Your task to perform on an android device: Show the shopping cart on costco. Search for macbook pro 13 inch on costco, select the first entry, and add it to the cart. Image 0: 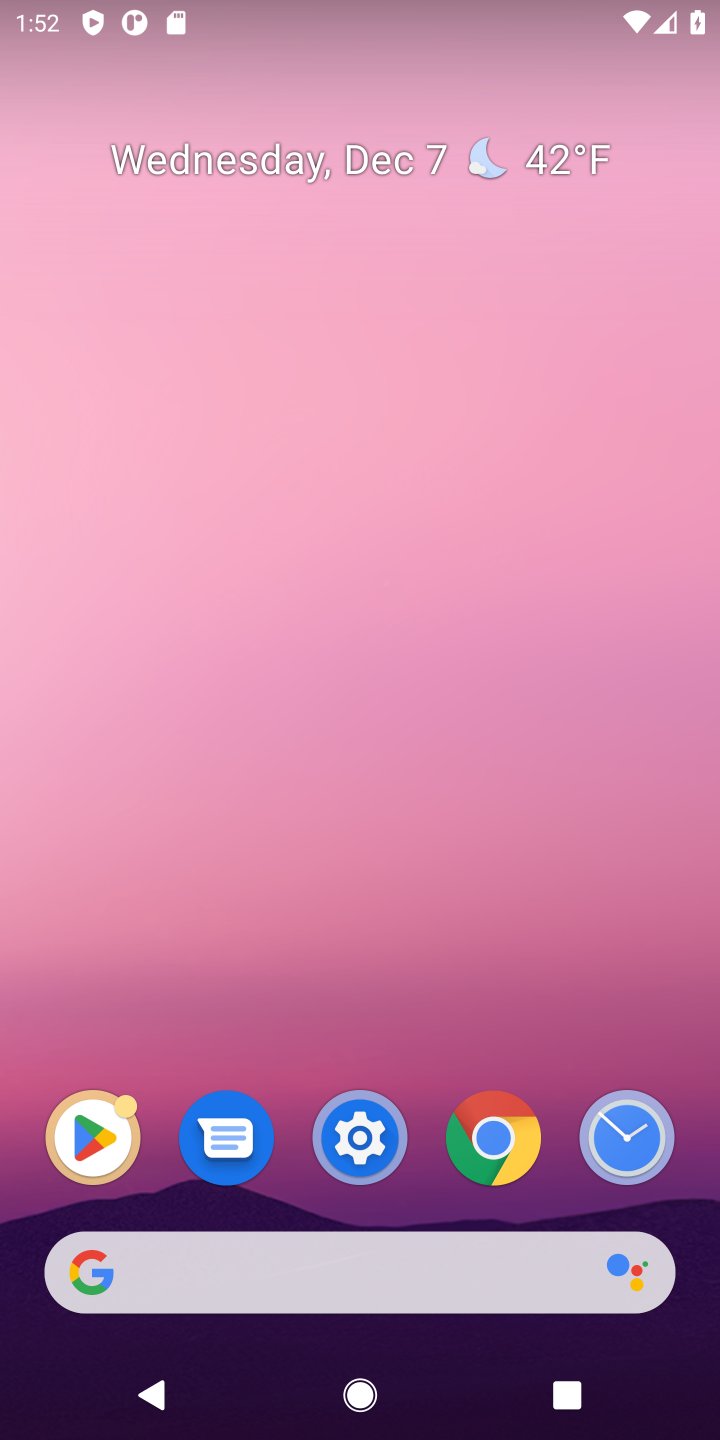
Step 0: click (390, 1293)
Your task to perform on an android device: Show the shopping cart on costco. Search for macbook pro 13 inch on costco, select the first entry, and add it to the cart. Image 1: 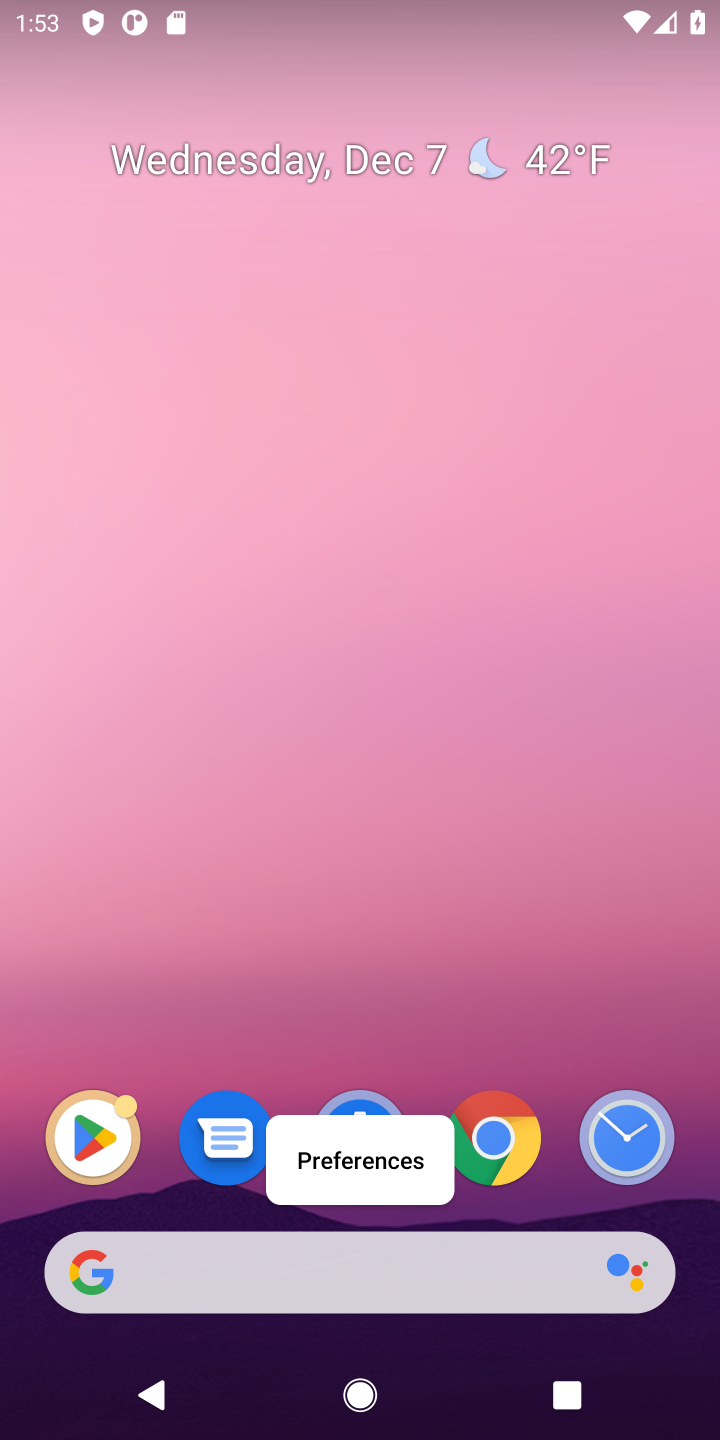
Step 1: type "costco"
Your task to perform on an android device: Show the shopping cart on costco. Search for macbook pro 13 inch on costco, select the first entry, and add it to the cart. Image 2: 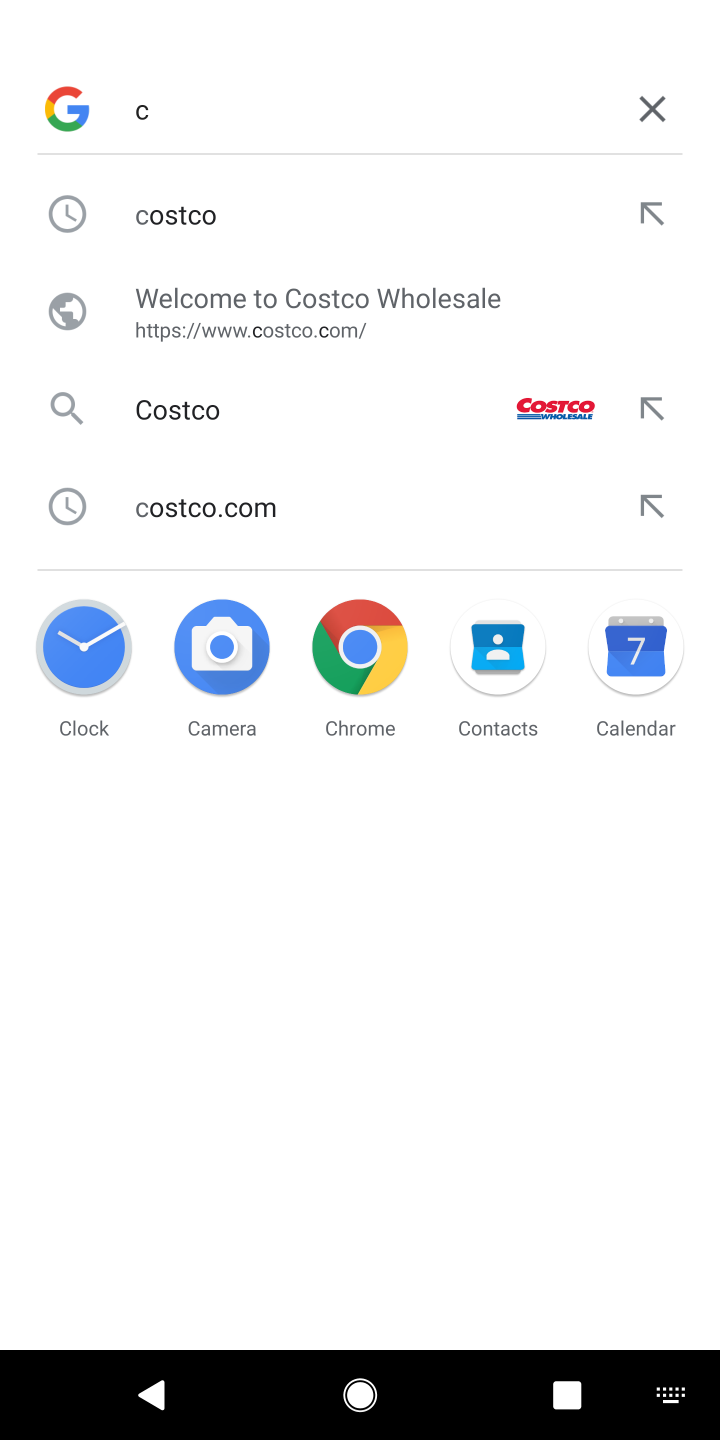
Step 2: click (211, 438)
Your task to perform on an android device: Show the shopping cart on costco. Search for macbook pro 13 inch on costco, select the first entry, and add it to the cart. Image 3: 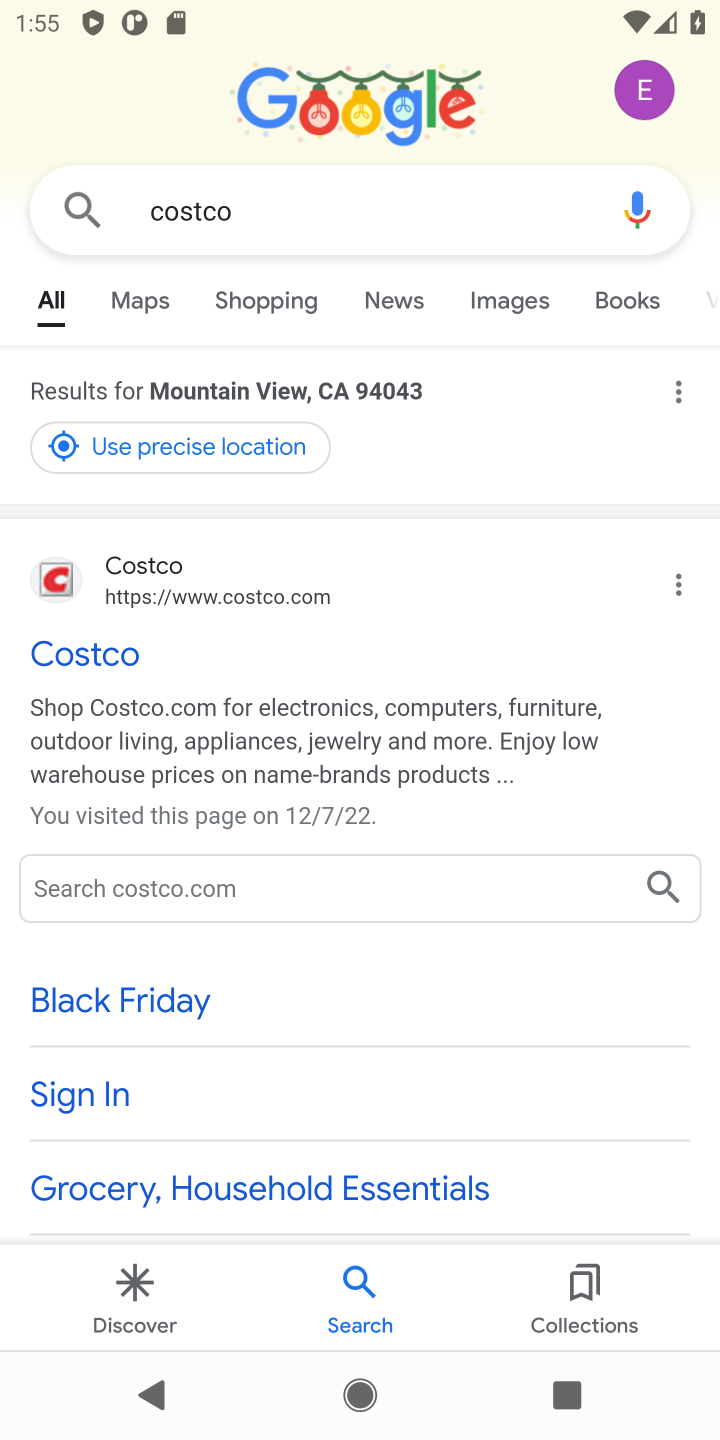
Step 3: click (79, 680)
Your task to perform on an android device: Show the shopping cart on costco. Search for macbook pro 13 inch on costco, select the first entry, and add it to the cart. Image 4: 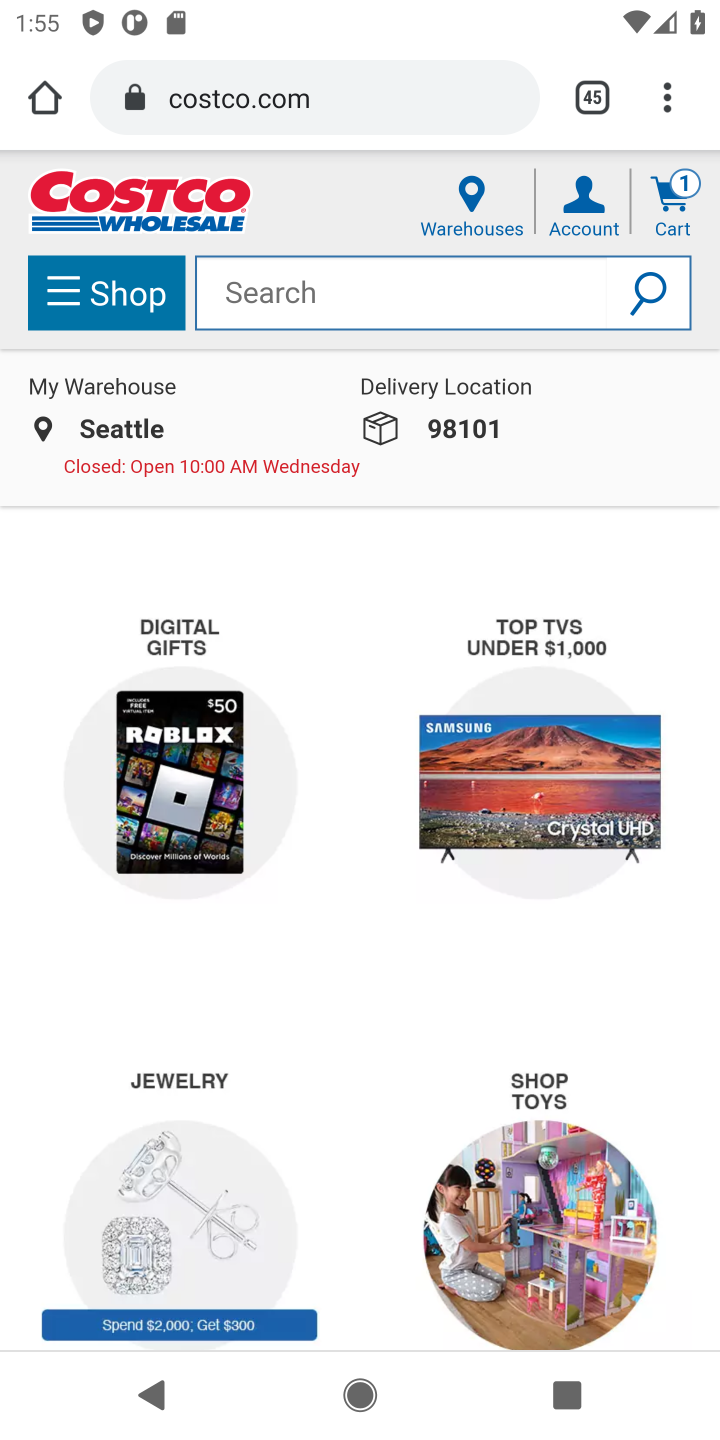
Step 4: click (335, 311)
Your task to perform on an android device: Show the shopping cart on costco. Search for macbook pro 13 inch on costco, select the first entry, and add it to the cart. Image 5: 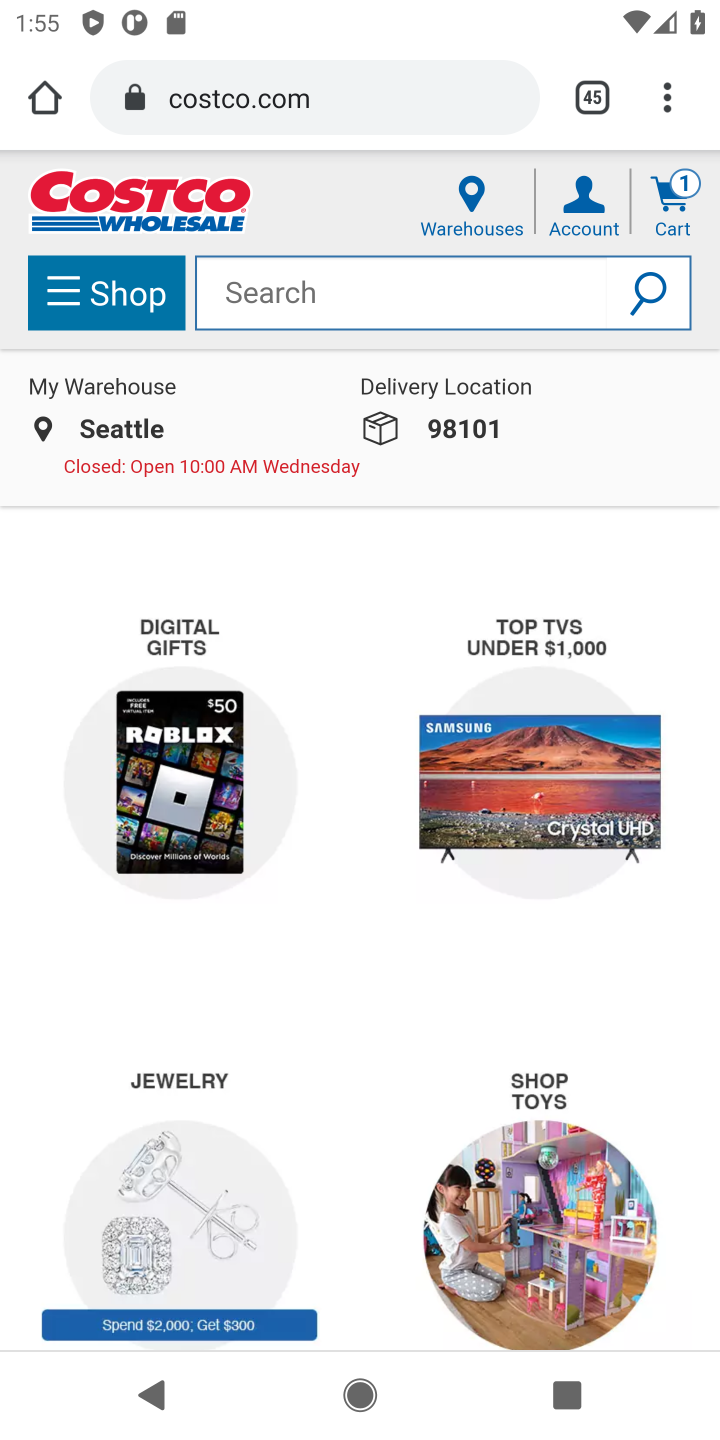
Step 5: click (399, 305)
Your task to perform on an android device: Show the shopping cart on costco. Search for macbook pro 13 inch on costco, select the first entry, and add it to the cart. Image 6: 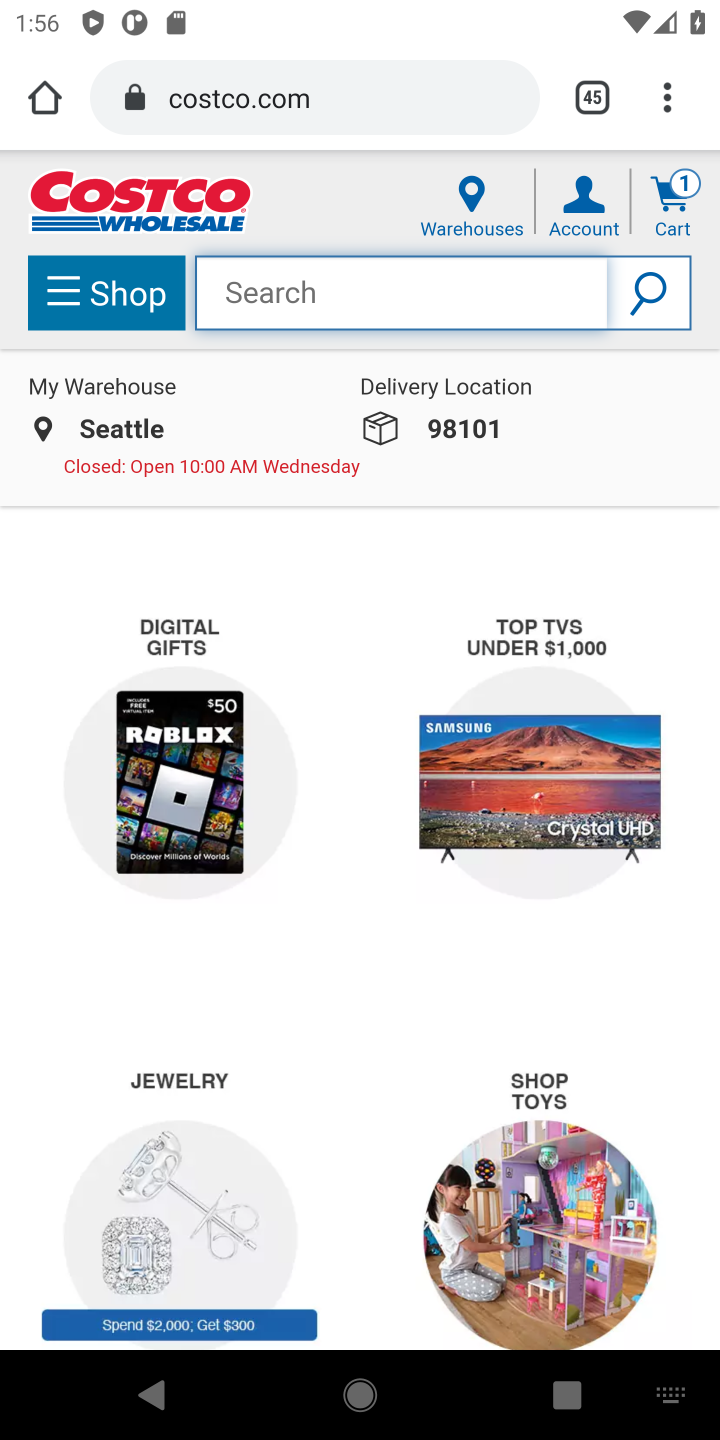
Step 6: type "macbook"
Your task to perform on an android device: Show the shopping cart on costco. Search for macbook pro 13 inch on costco, select the first entry, and add it to the cart. Image 7: 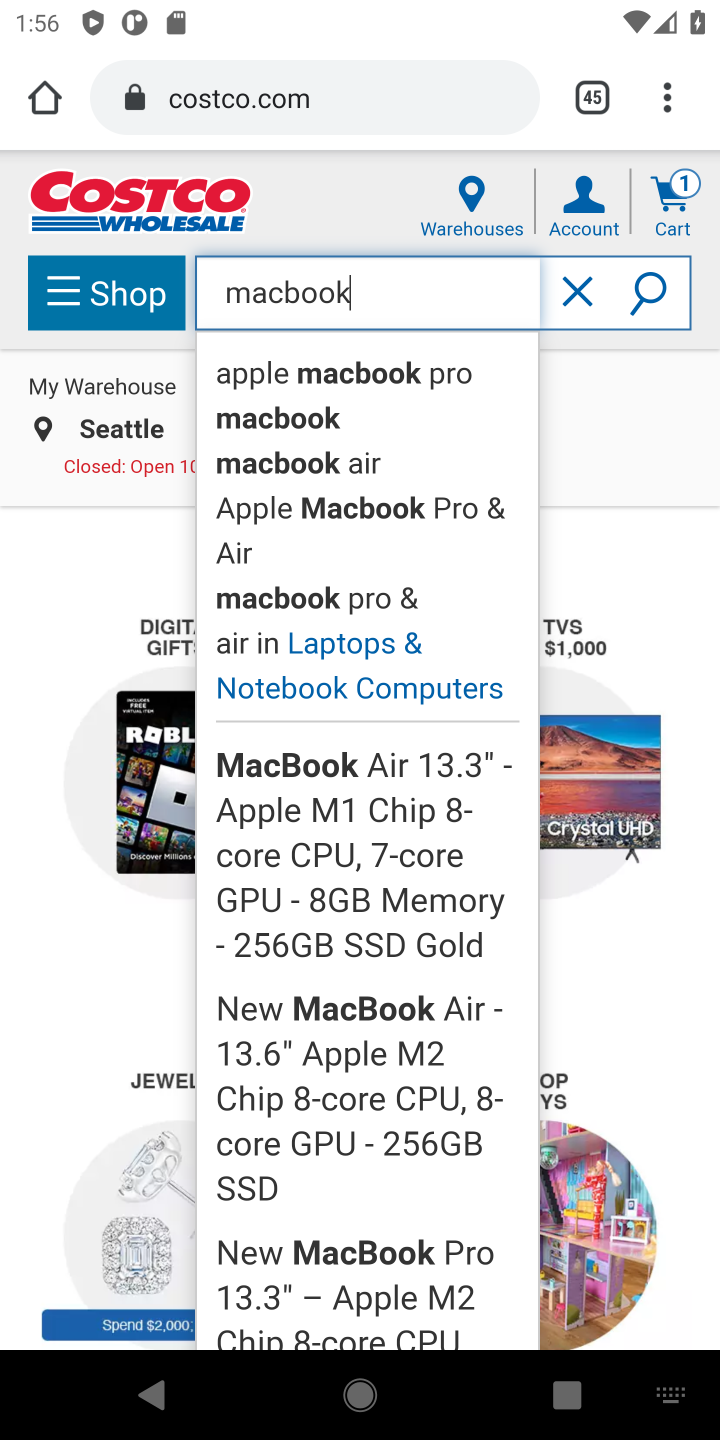
Step 7: click (280, 393)
Your task to perform on an android device: Show the shopping cart on costco. Search for macbook pro 13 inch on costco, select the first entry, and add it to the cart. Image 8: 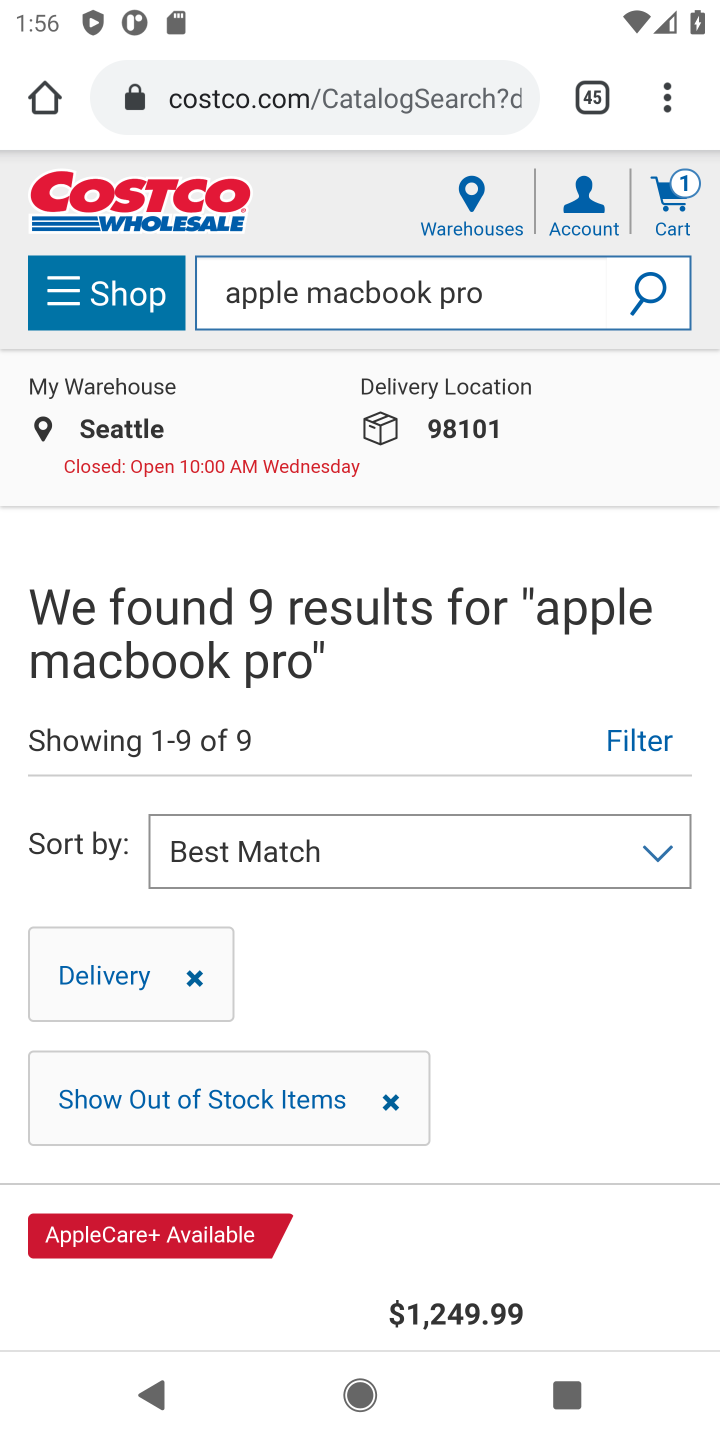
Step 8: task complete